Your task to perform on an android device: Search for Mexican restaurants on Maps Image 0: 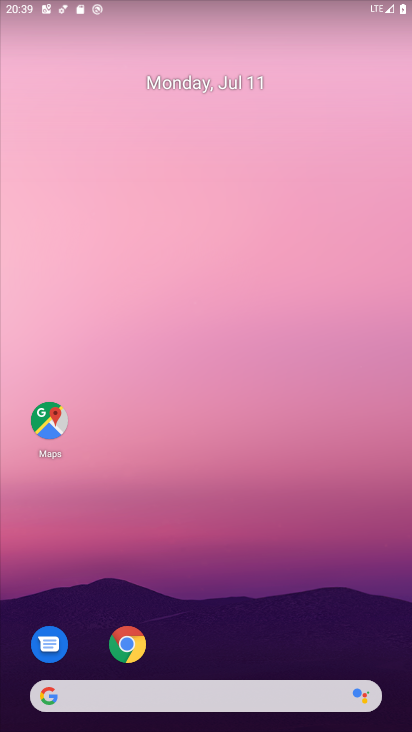
Step 0: click (47, 426)
Your task to perform on an android device: Search for Mexican restaurants on Maps Image 1: 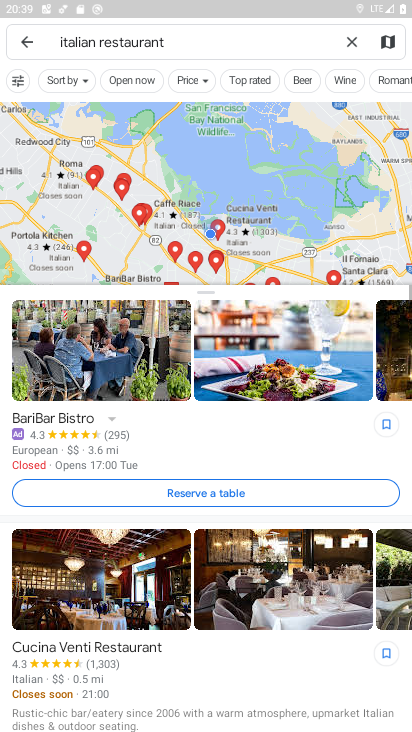
Step 1: click (355, 45)
Your task to perform on an android device: Search for Mexican restaurants on Maps Image 2: 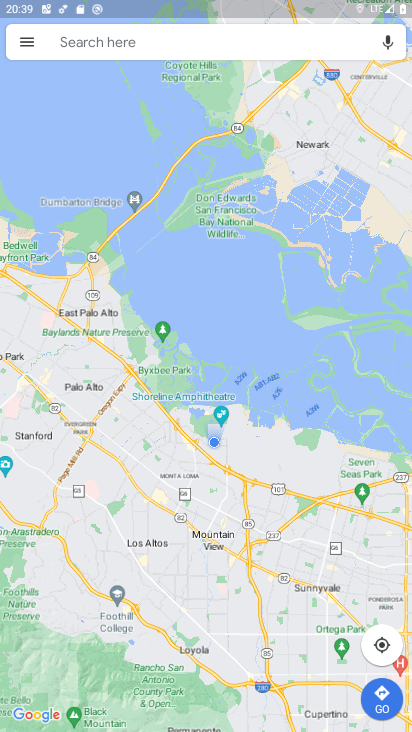
Step 2: click (234, 40)
Your task to perform on an android device: Search for Mexican restaurants on Maps Image 3: 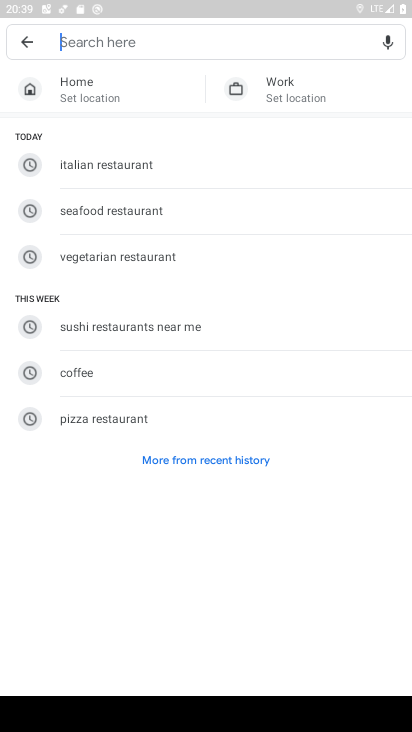
Step 3: type " Mexican restaurant "
Your task to perform on an android device: Search for Mexican restaurants on Maps Image 4: 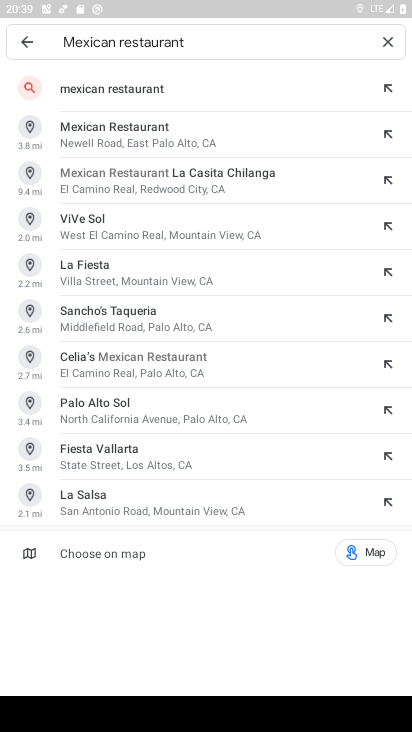
Step 4: click (155, 91)
Your task to perform on an android device: Search for Mexican restaurants on Maps Image 5: 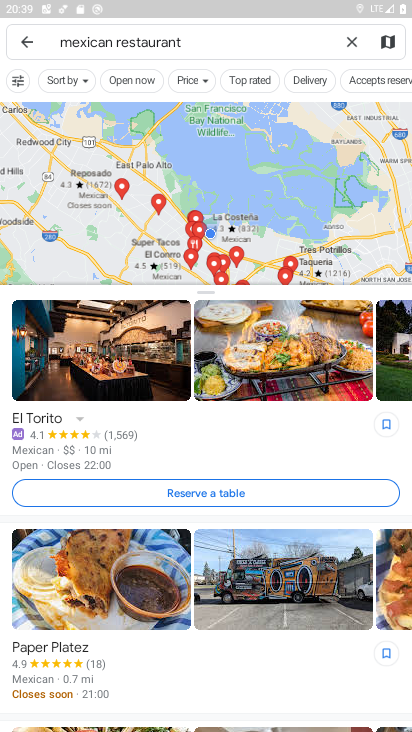
Step 5: task complete